Your task to perform on an android device: What is the recent news? Image 0: 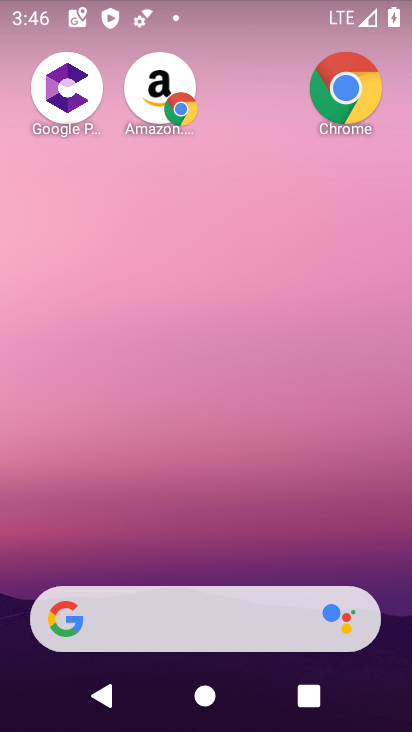
Step 0: drag from (210, 530) to (261, 44)
Your task to perform on an android device: What is the recent news? Image 1: 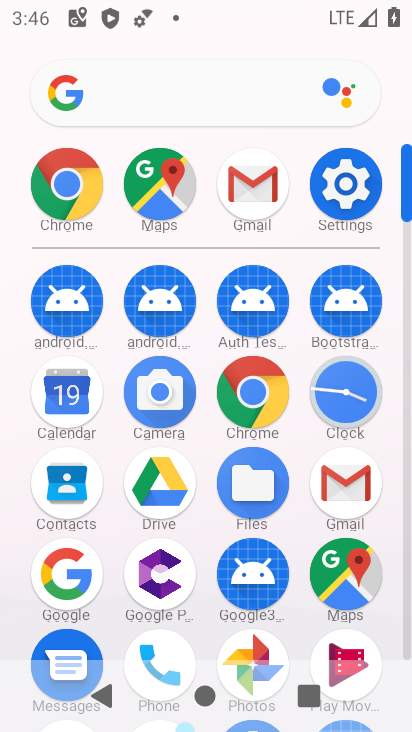
Step 1: drag from (117, 562) to (119, 374)
Your task to perform on an android device: What is the recent news? Image 2: 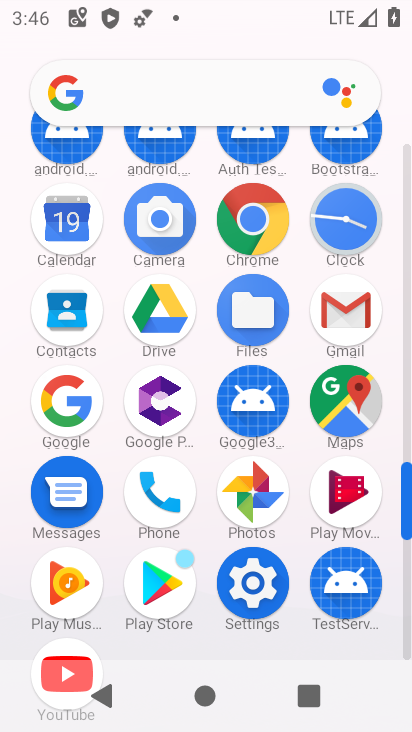
Step 2: click (64, 405)
Your task to perform on an android device: What is the recent news? Image 3: 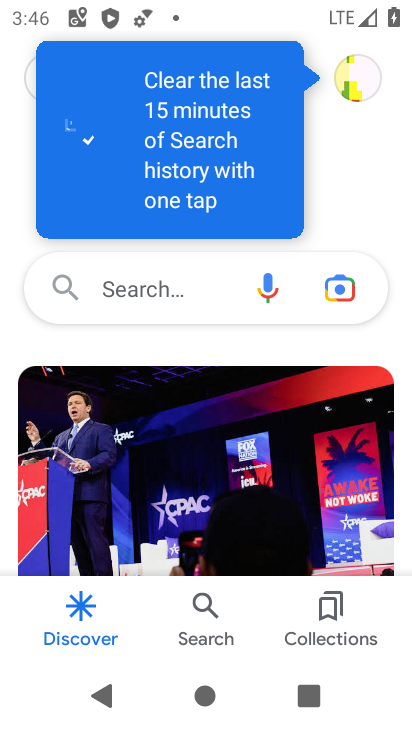
Step 3: drag from (142, 521) to (166, 389)
Your task to perform on an android device: What is the recent news? Image 4: 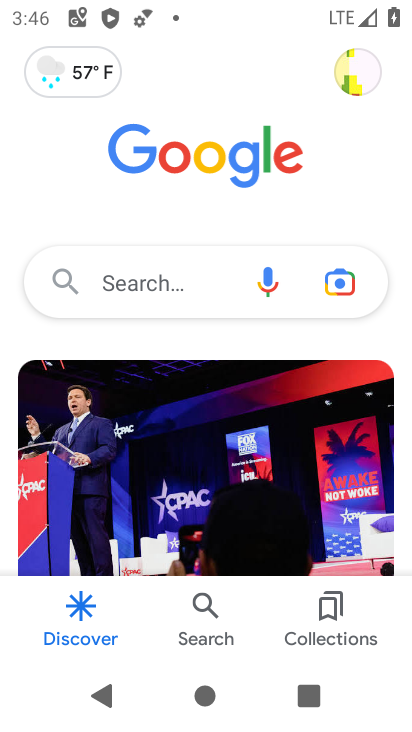
Step 4: click (193, 292)
Your task to perform on an android device: What is the recent news? Image 5: 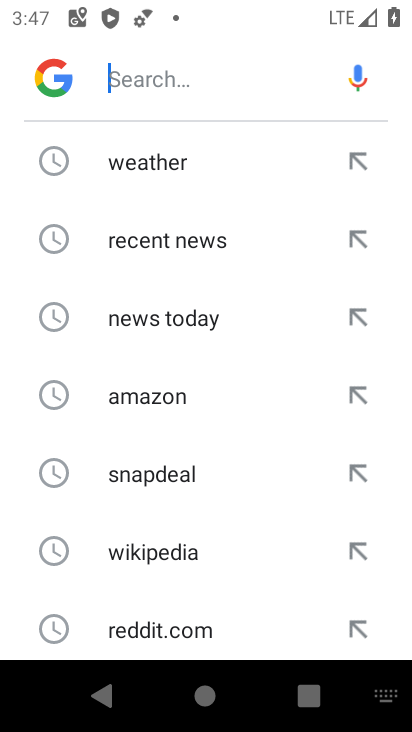
Step 5: click (181, 243)
Your task to perform on an android device: What is the recent news? Image 6: 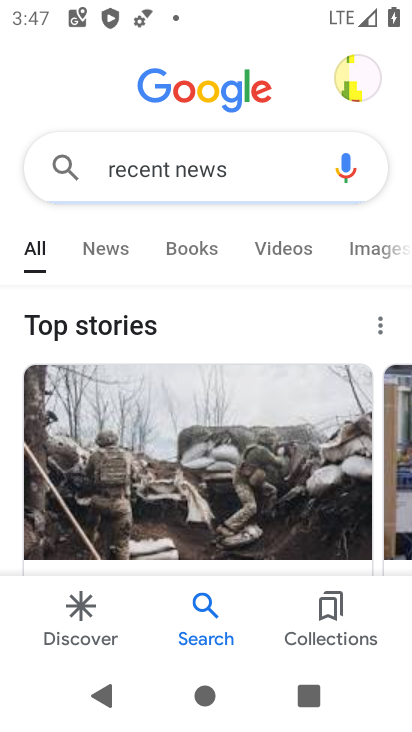
Step 6: task complete